Your task to perform on an android device: clear history in the chrome app Image 0: 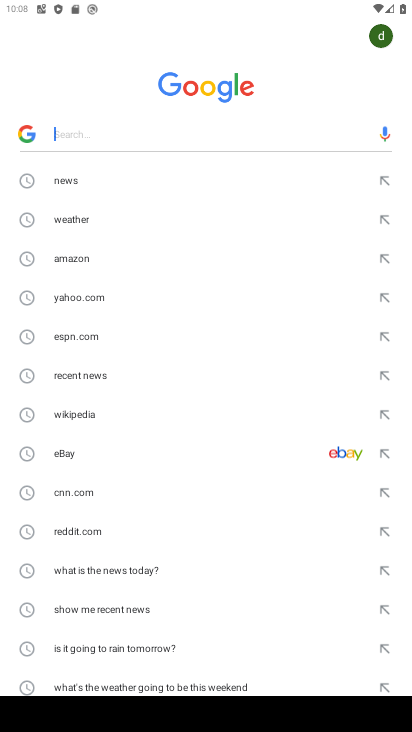
Step 0: press home button
Your task to perform on an android device: clear history in the chrome app Image 1: 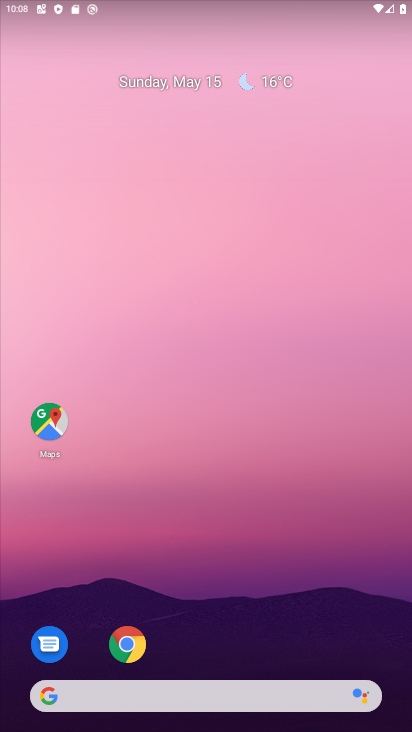
Step 1: click (133, 650)
Your task to perform on an android device: clear history in the chrome app Image 2: 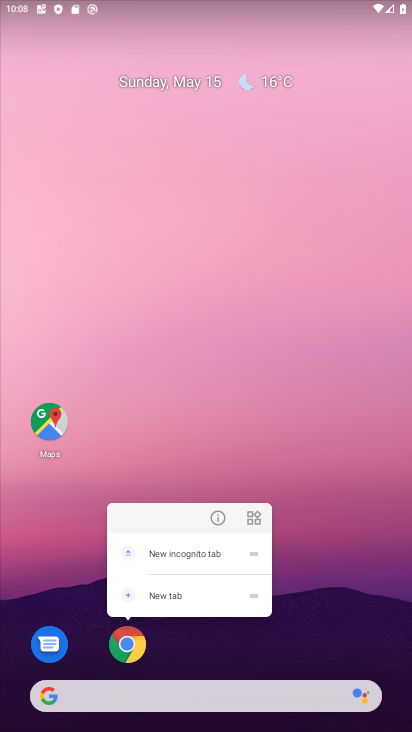
Step 2: click (117, 636)
Your task to perform on an android device: clear history in the chrome app Image 3: 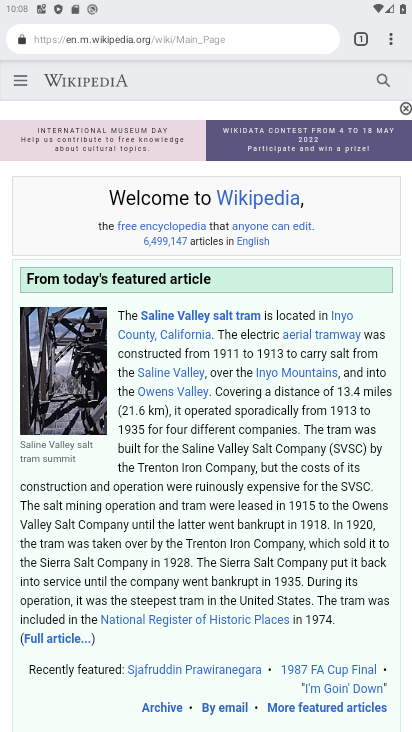
Step 3: click (398, 33)
Your task to perform on an android device: clear history in the chrome app Image 4: 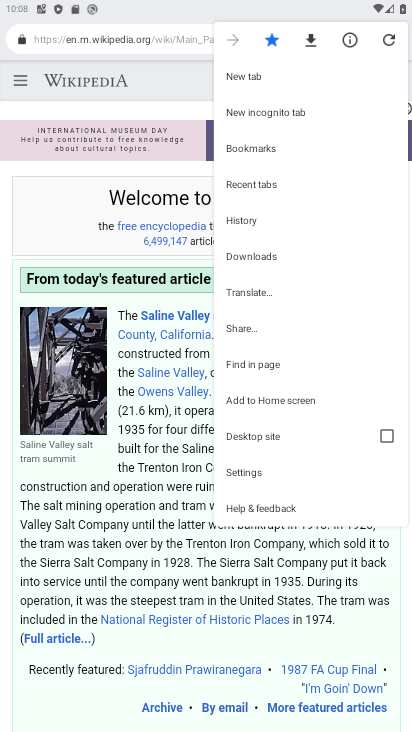
Step 4: click (286, 222)
Your task to perform on an android device: clear history in the chrome app Image 5: 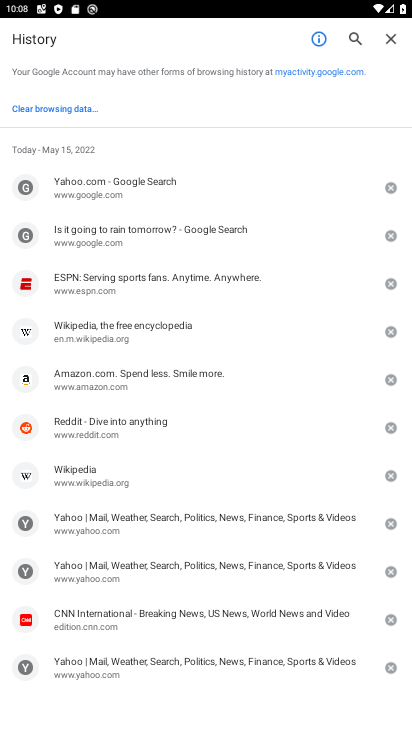
Step 5: click (69, 109)
Your task to perform on an android device: clear history in the chrome app Image 6: 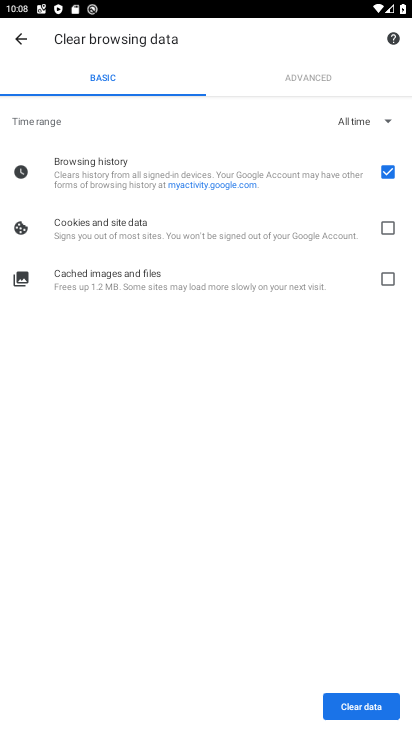
Step 6: click (380, 708)
Your task to perform on an android device: clear history in the chrome app Image 7: 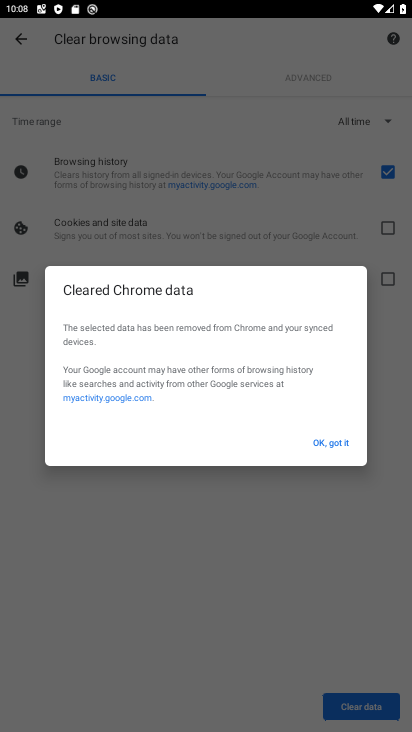
Step 7: click (340, 438)
Your task to perform on an android device: clear history in the chrome app Image 8: 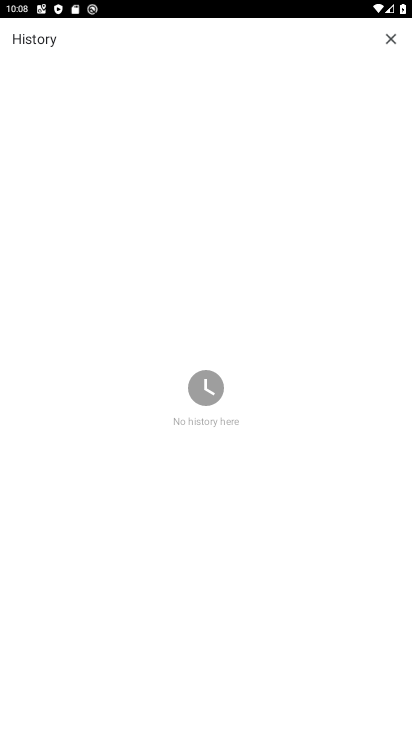
Step 8: task complete